Your task to perform on an android device: Search for apple airpods on ebay, select the first entry, add it to the cart, then select checkout. Image 0: 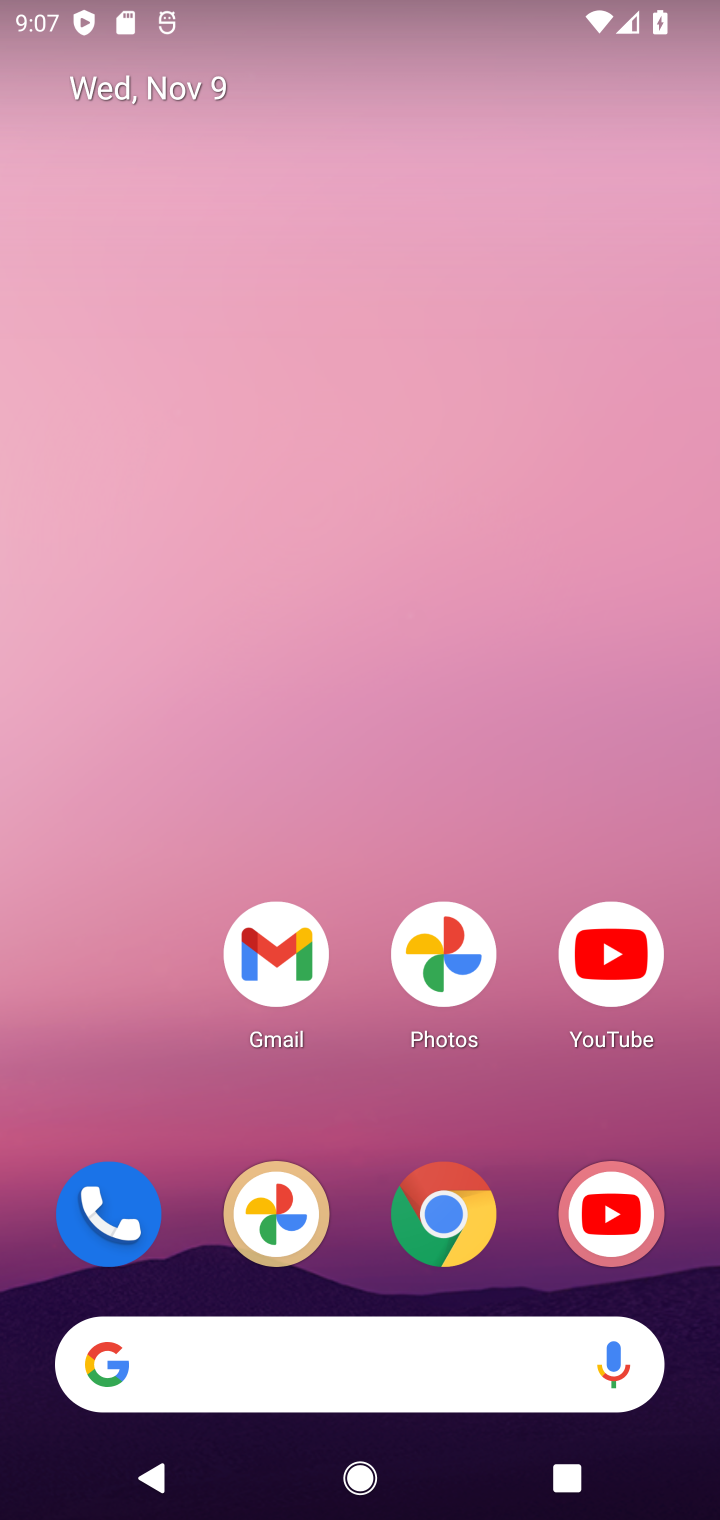
Step 0: drag from (364, 1154) to (371, 233)
Your task to perform on an android device: Search for apple airpods on ebay, select the first entry, add it to the cart, then select checkout. Image 1: 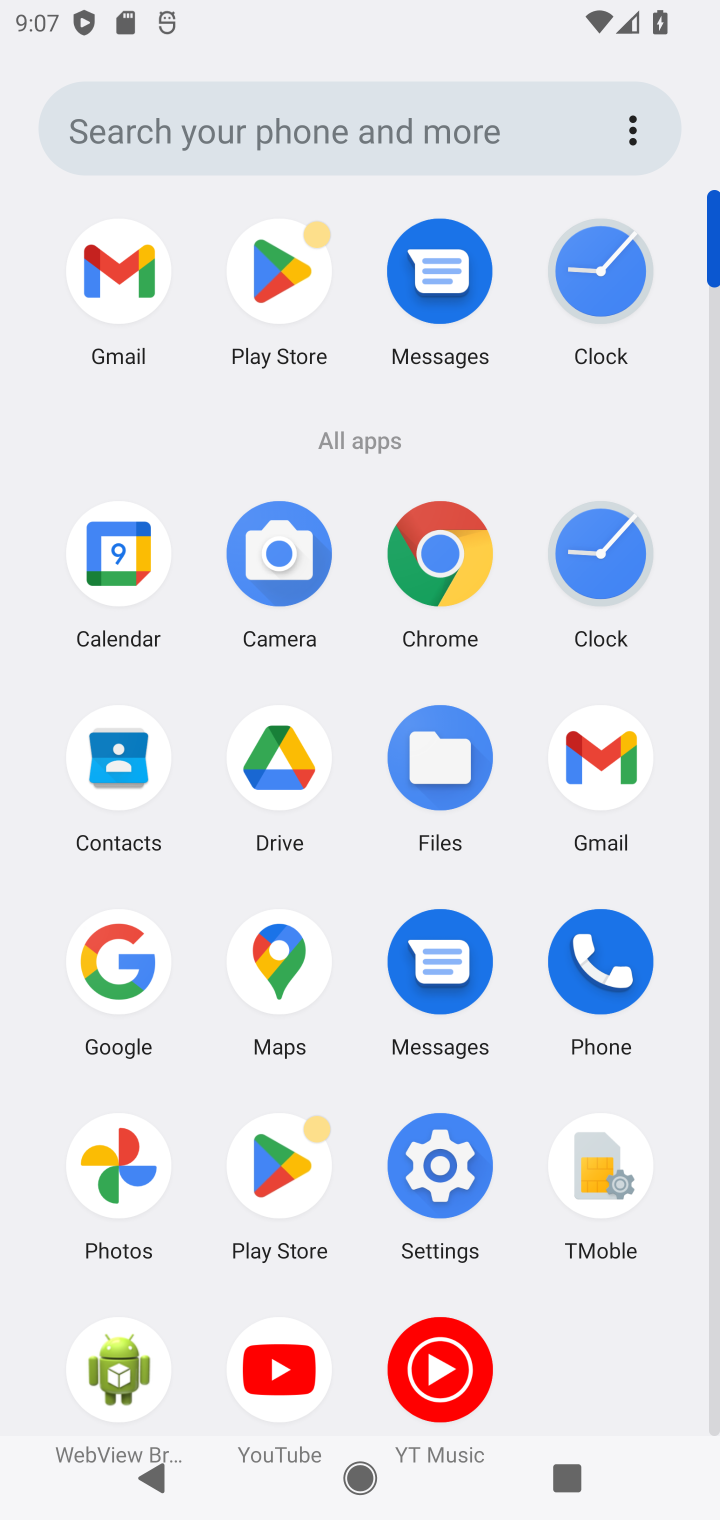
Step 1: click (437, 551)
Your task to perform on an android device: Search for apple airpods on ebay, select the first entry, add it to the cart, then select checkout. Image 2: 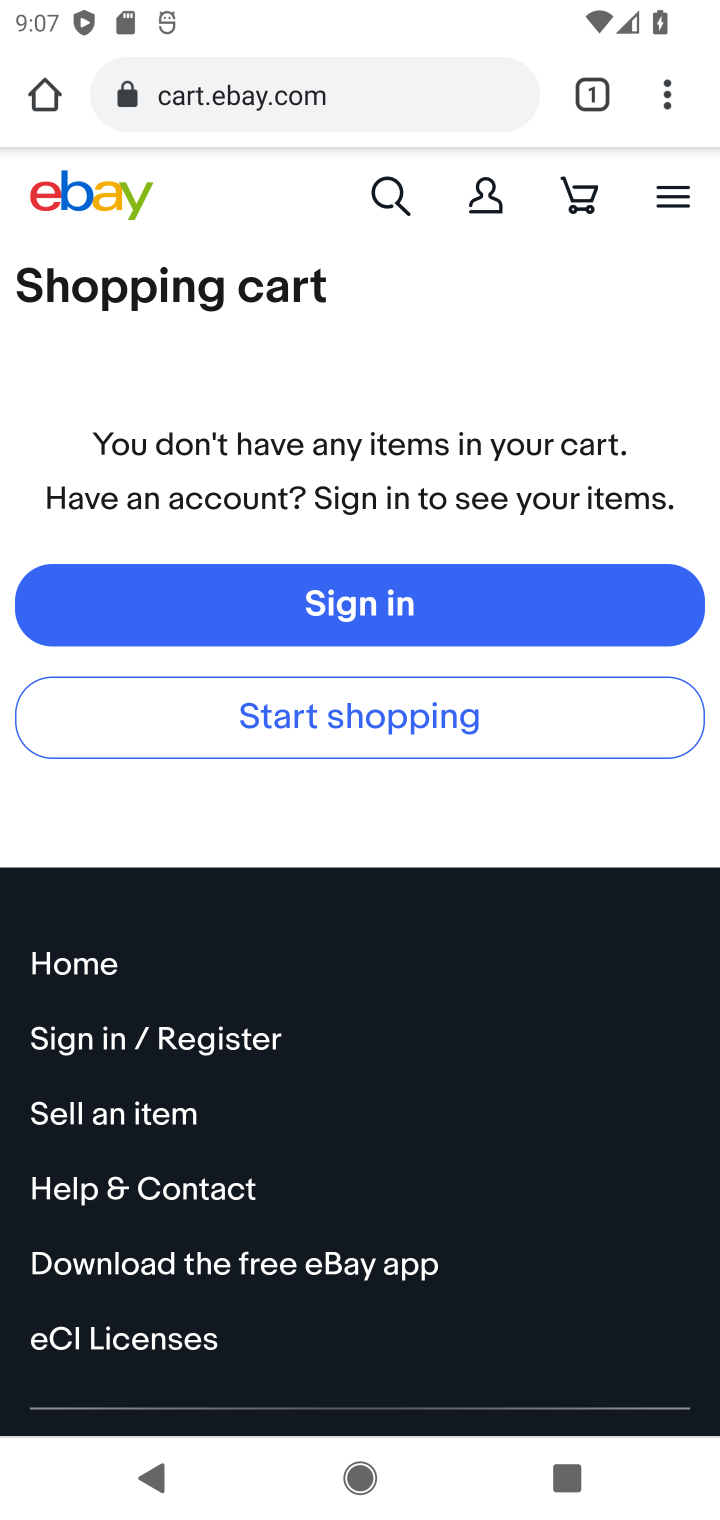
Step 2: click (379, 89)
Your task to perform on an android device: Search for apple airpods on ebay, select the first entry, add it to the cart, then select checkout. Image 3: 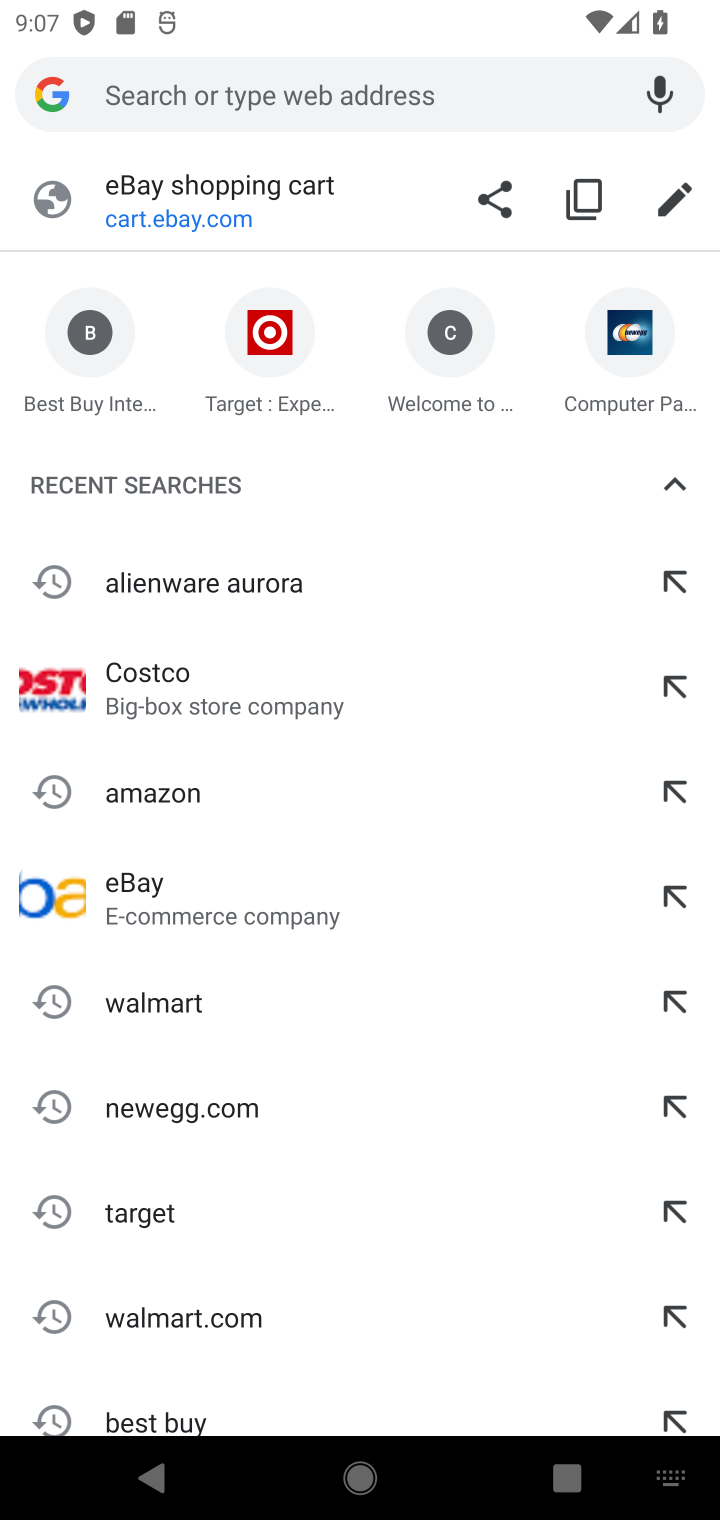
Step 3: type "ebay.com"
Your task to perform on an android device: Search for apple airpods on ebay, select the first entry, add it to the cart, then select checkout. Image 4: 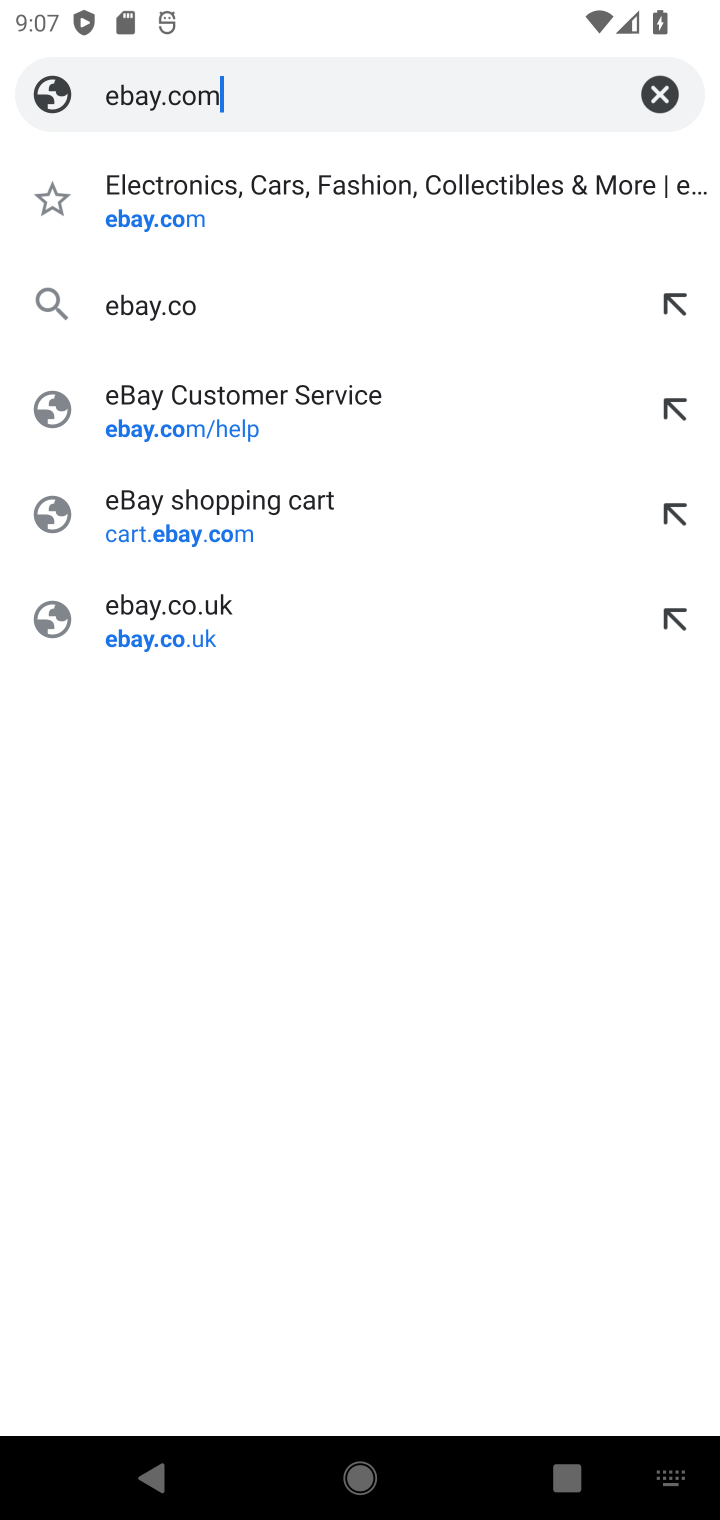
Step 4: press enter
Your task to perform on an android device: Search for apple airpods on ebay, select the first entry, add it to the cart, then select checkout. Image 5: 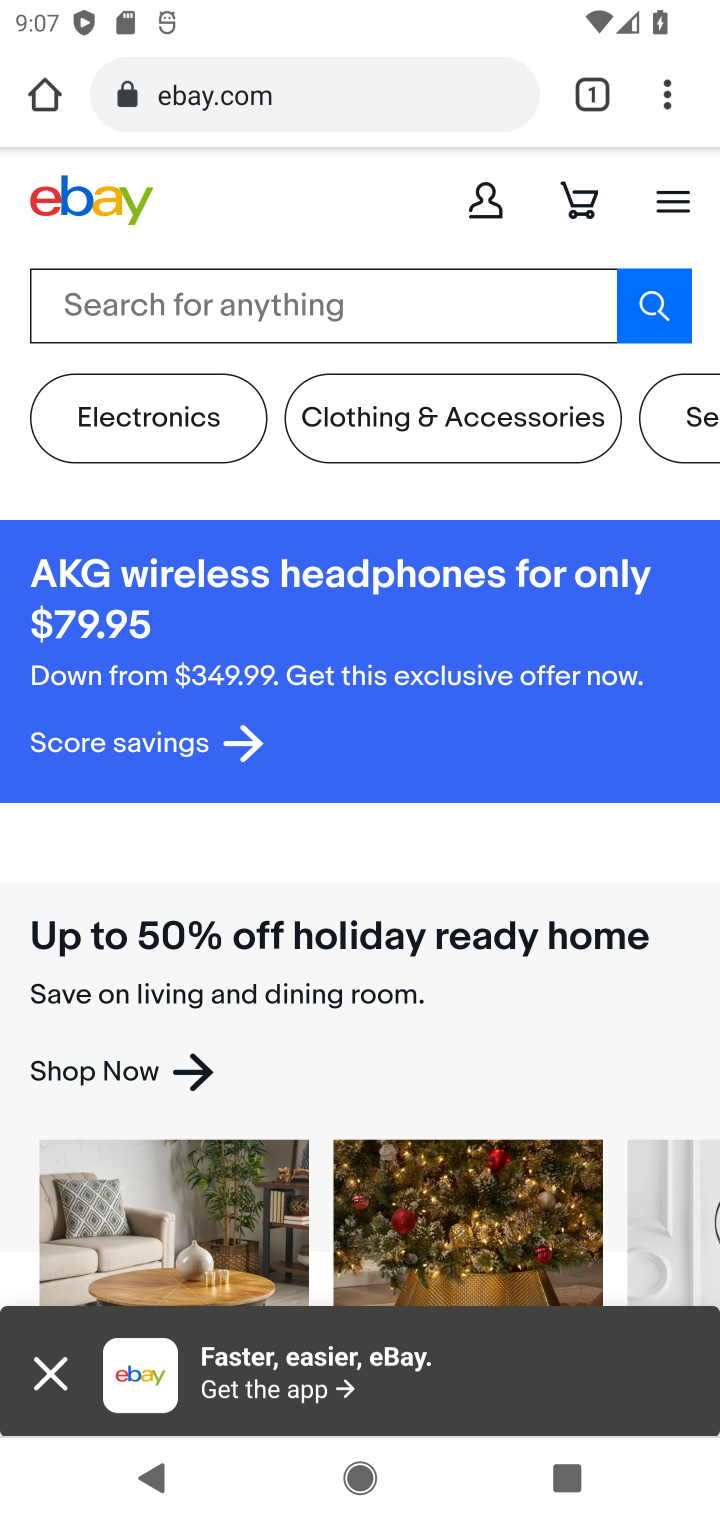
Step 5: click (260, 306)
Your task to perform on an android device: Search for apple airpods on ebay, select the first entry, add it to the cart, then select checkout. Image 6: 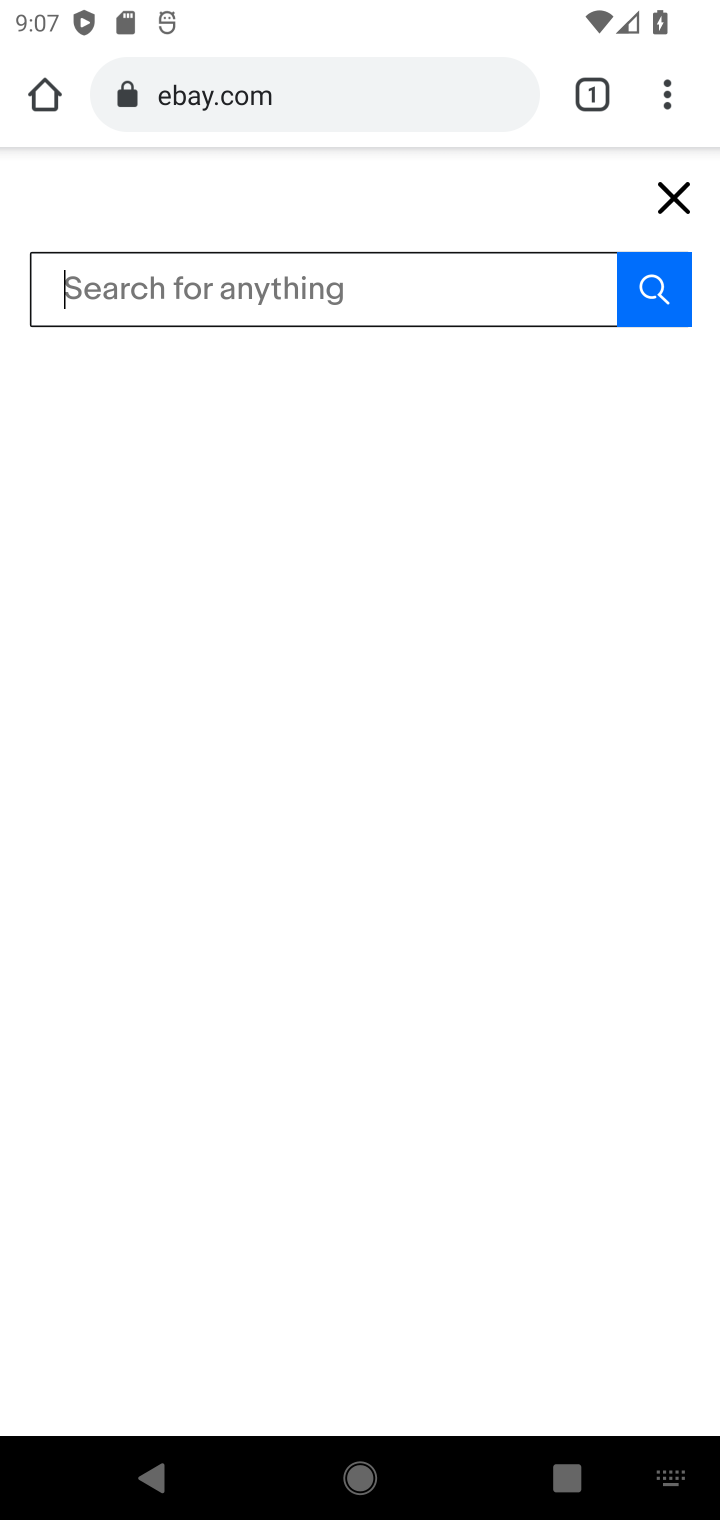
Step 6: type "apple airpods"
Your task to perform on an android device: Search for apple airpods on ebay, select the first entry, add it to the cart, then select checkout. Image 7: 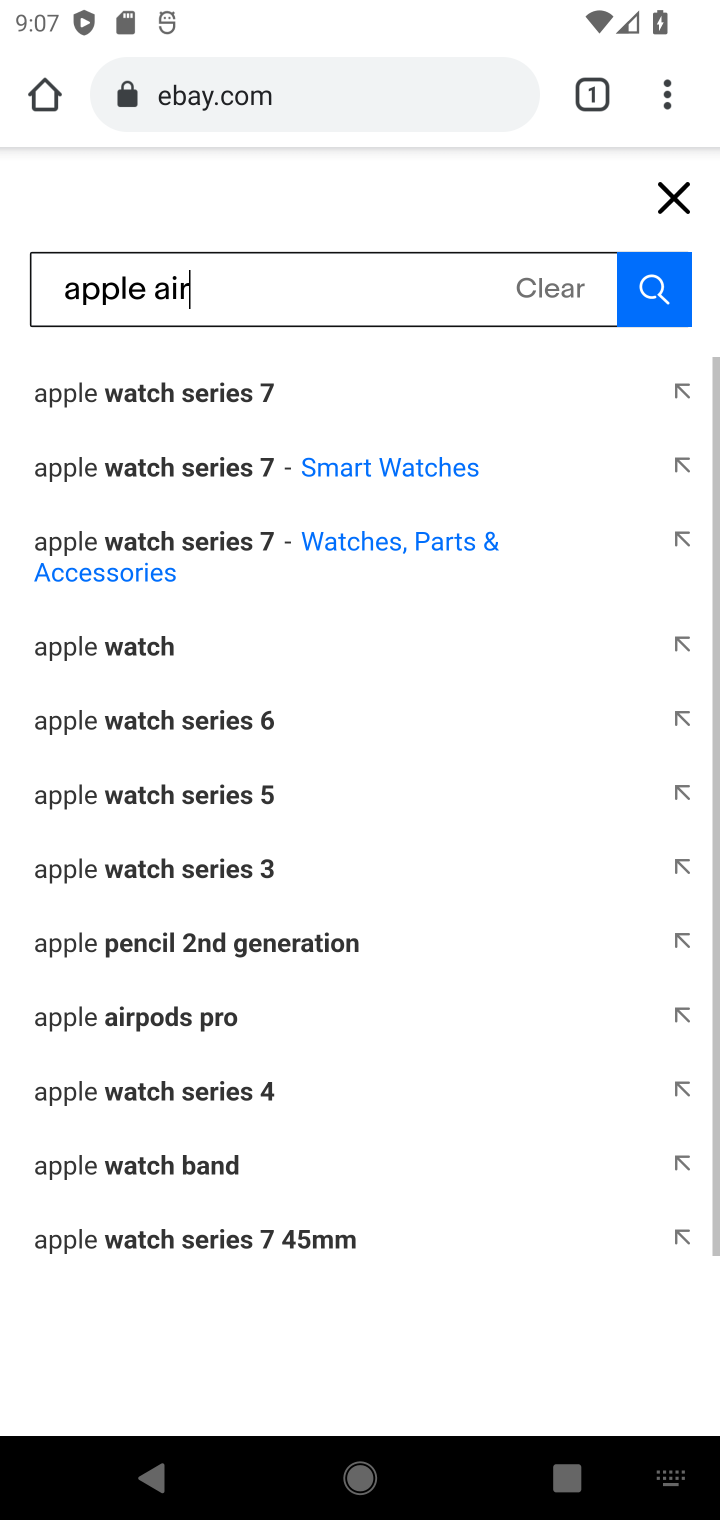
Step 7: press enter
Your task to perform on an android device: Search for apple airpods on ebay, select the first entry, add it to the cart, then select checkout. Image 8: 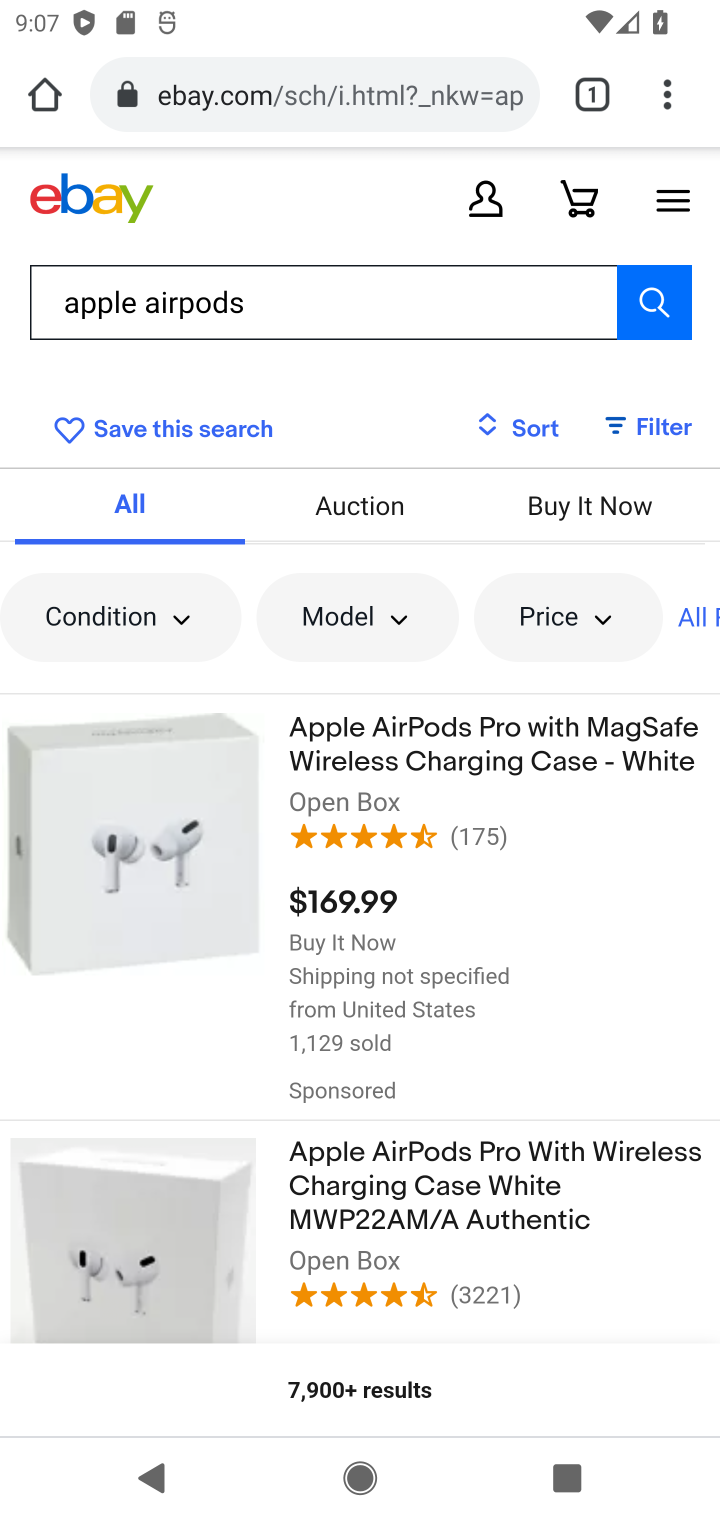
Step 8: click (504, 724)
Your task to perform on an android device: Search for apple airpods on ebay, select the first entry, add it to the cart, then select checkout. Image 9: 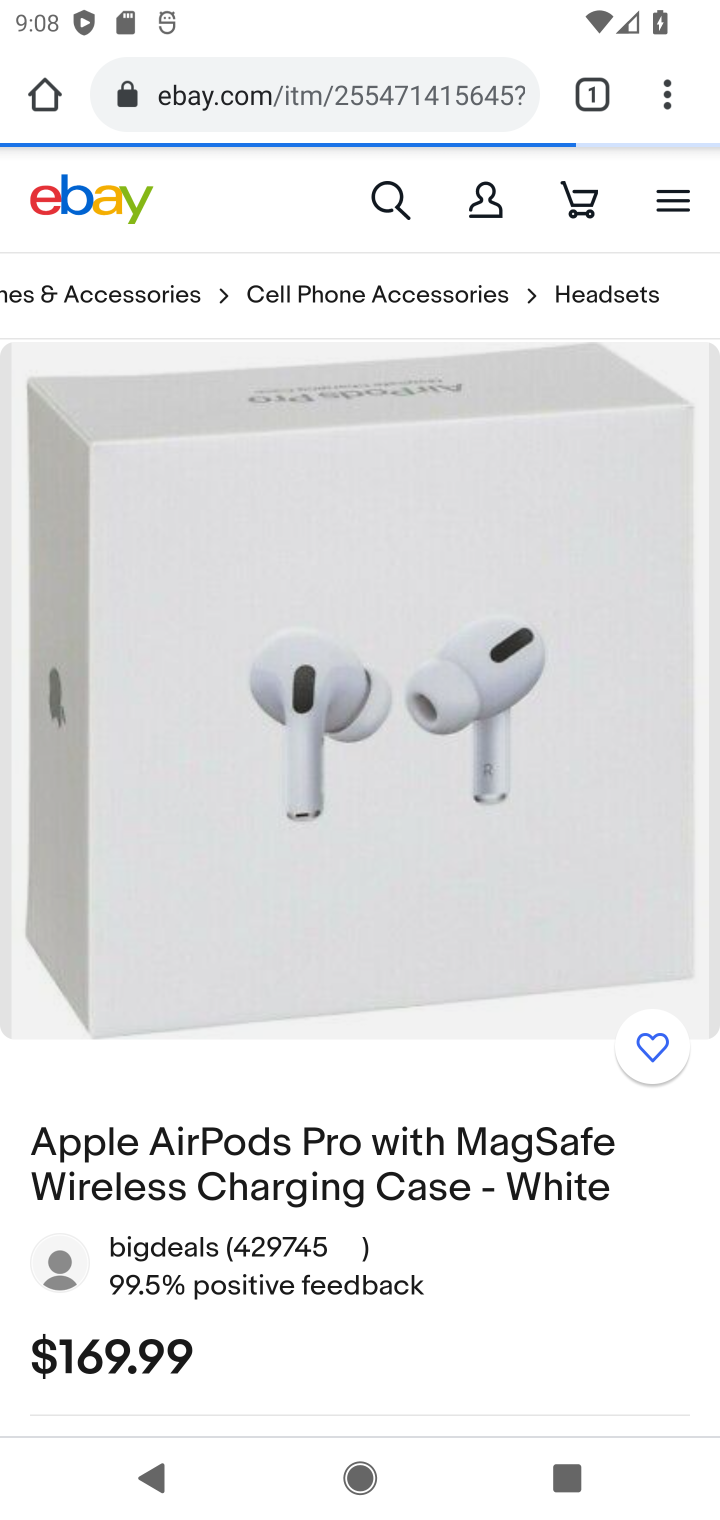
Step 9: drag from (422, 696) to (432, 352)
Your task to perform on an android device: Search for apple airpods on ebay, select the first entry, add it to the cart, then select checkout. Image 10: 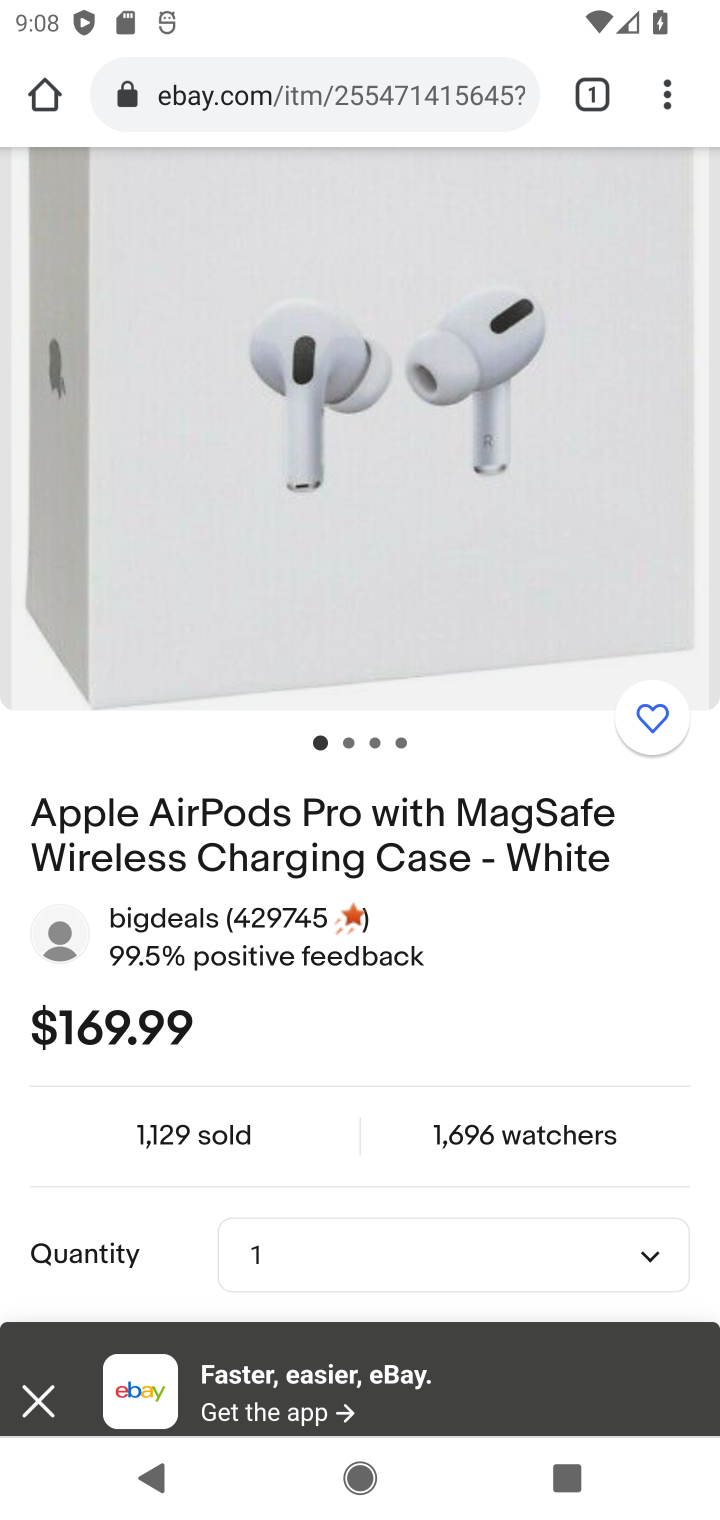
Step 10: drag from (407, 1058) to (482, 544)
Your task to perform on an android device: Search for apple airpods on ebay, select the first entry, add it to the cart, then select checkout. Image 11: 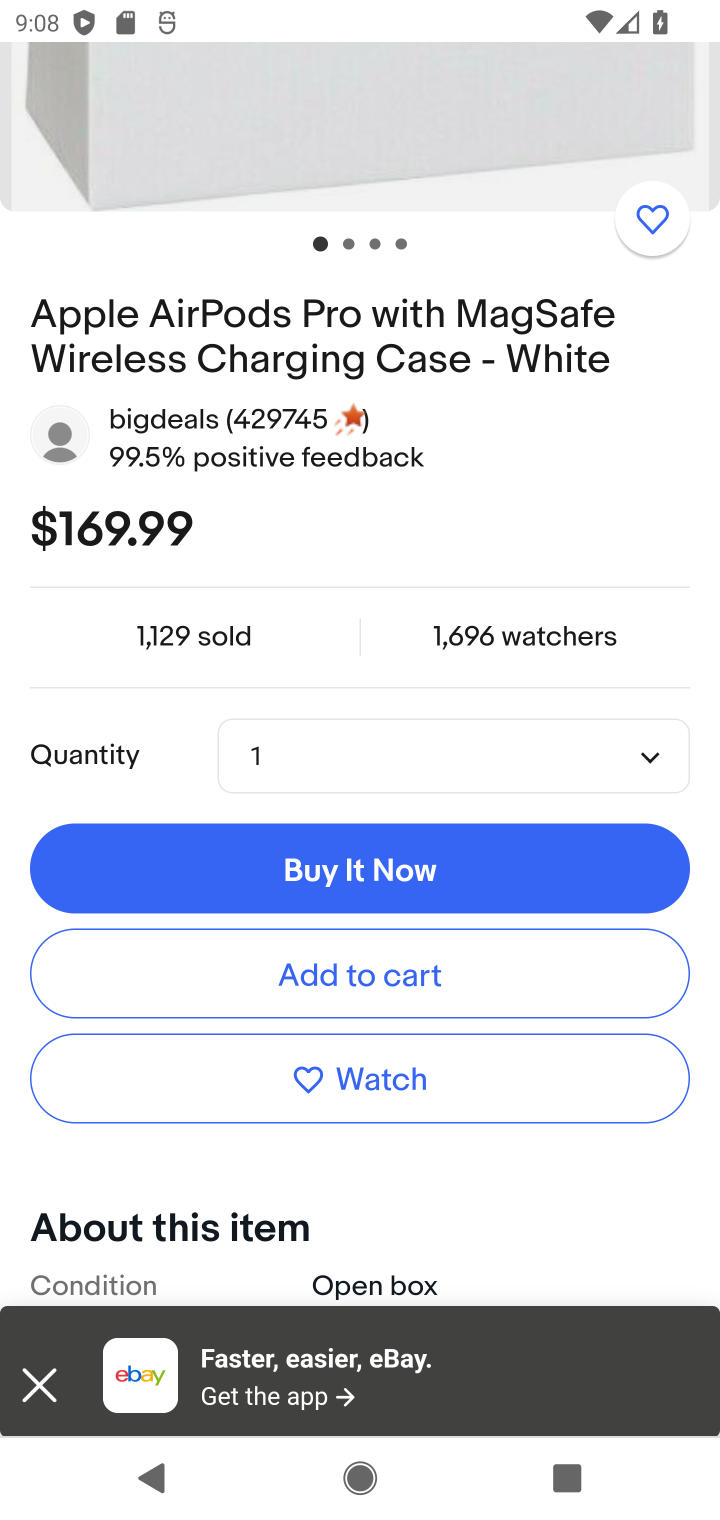
Step 11: click (516, 959)
Your task to perform on an android device: Search for apple airpods on ebay, select the first entry, add it to the cart, then select checkout. Image 12: 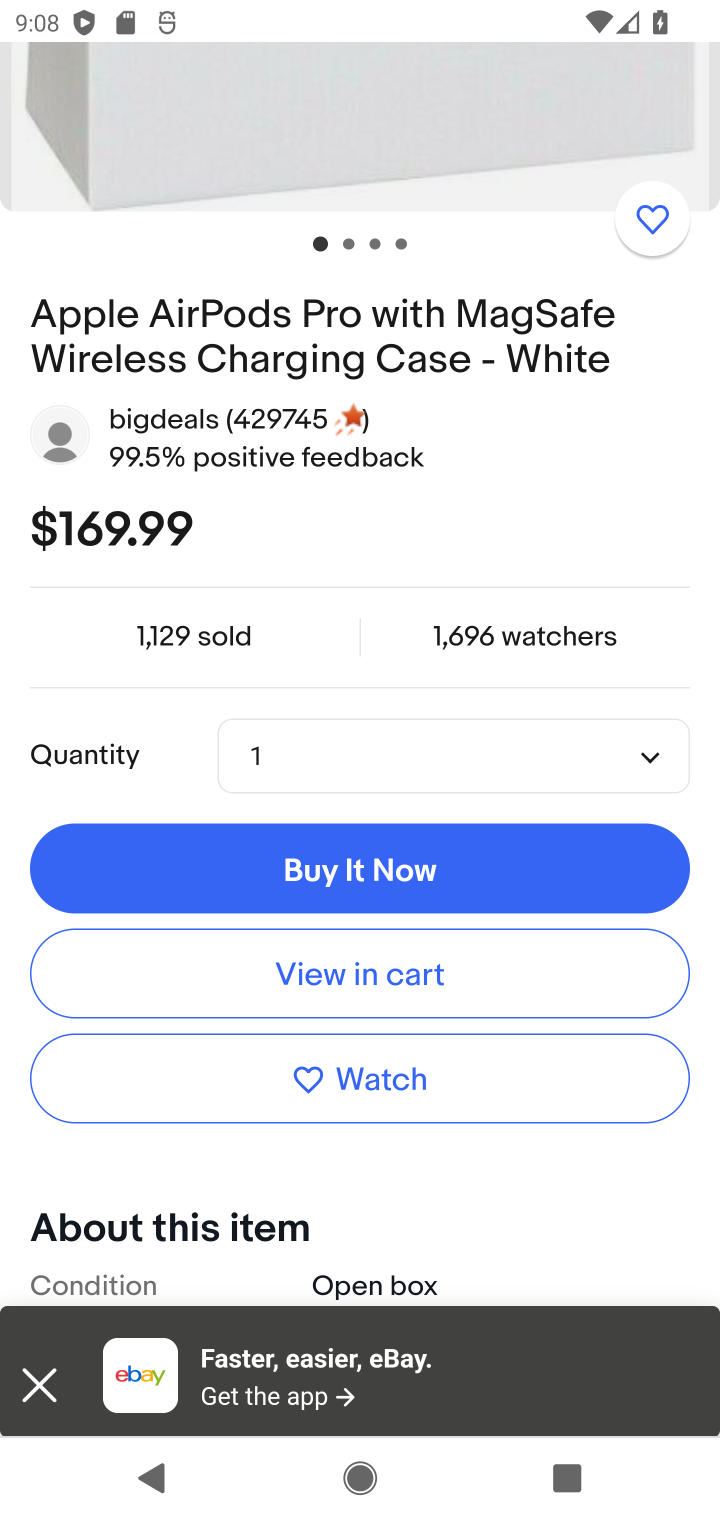
Step 12: click (421, 996)
Your task to perform on an android device: Search for apple airpods on ebay, select the first entry, add it to the cart, then select checkout. Image 13: 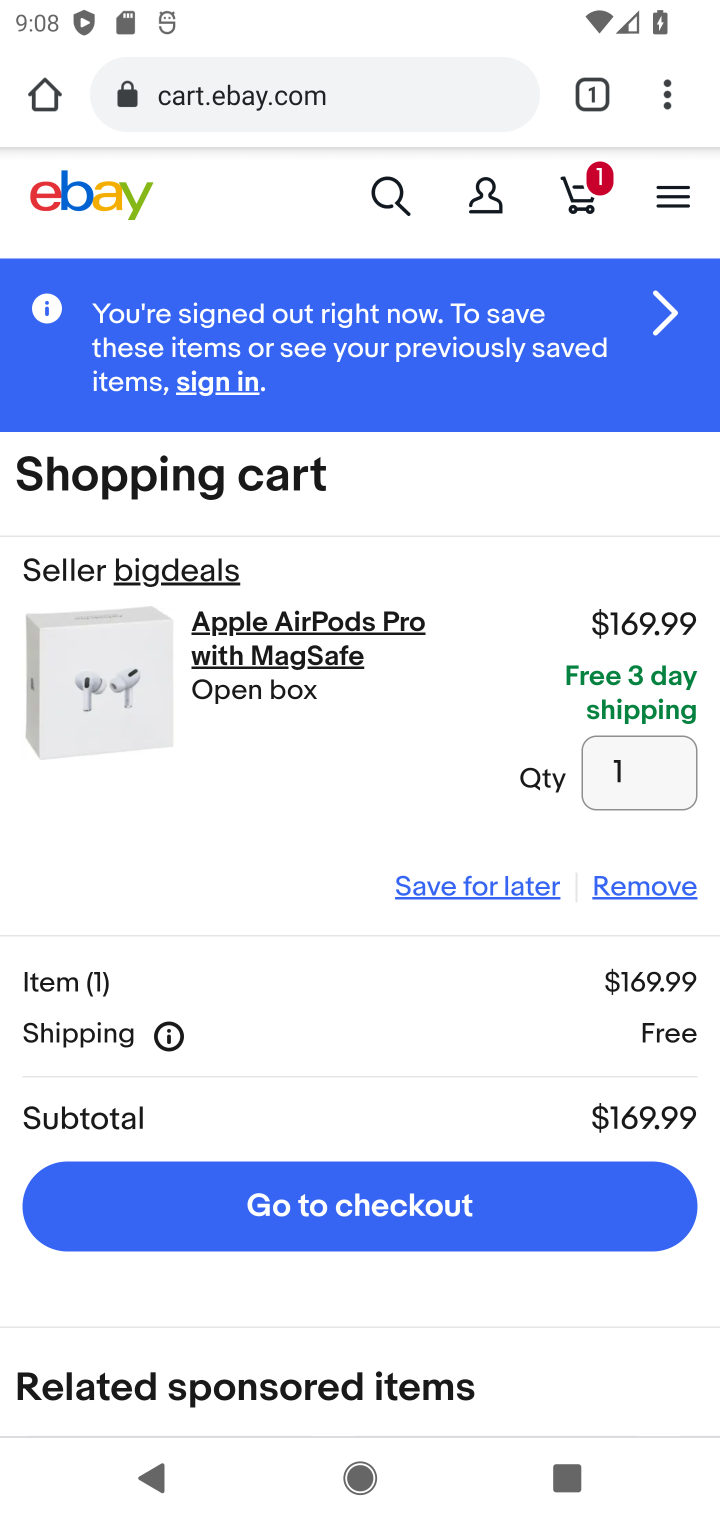
Step 13: click (440, 1217)
Your task to perform on an android device: Search for apple airpods on ebay, select the first entry, add it to the cart, then select checkout. Image 14: 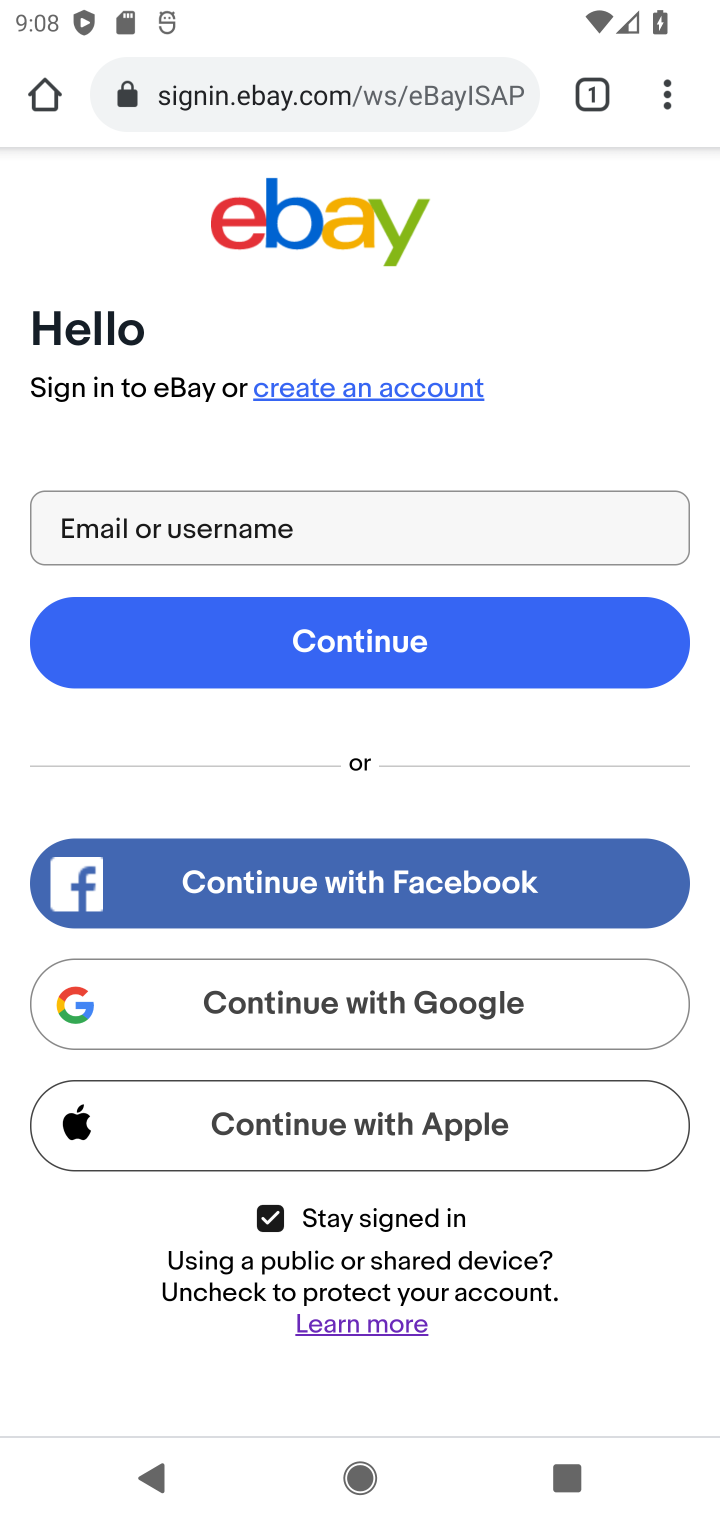
Step 14: task complete